Your task to perform on an android device: create a new album in the google photos Image 0: 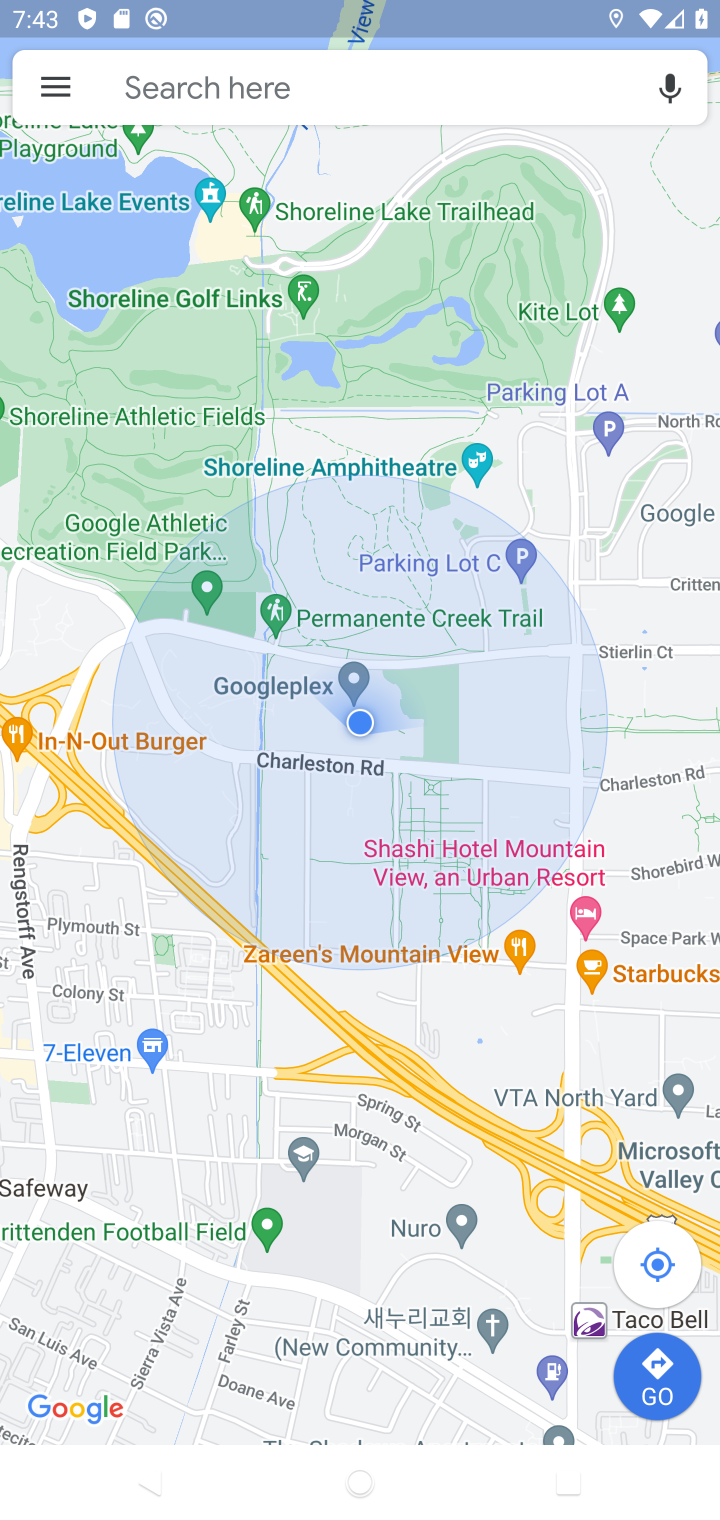
Step 0: press home button
Your task to perform on an android device: create a new album in the google photos Image 1: 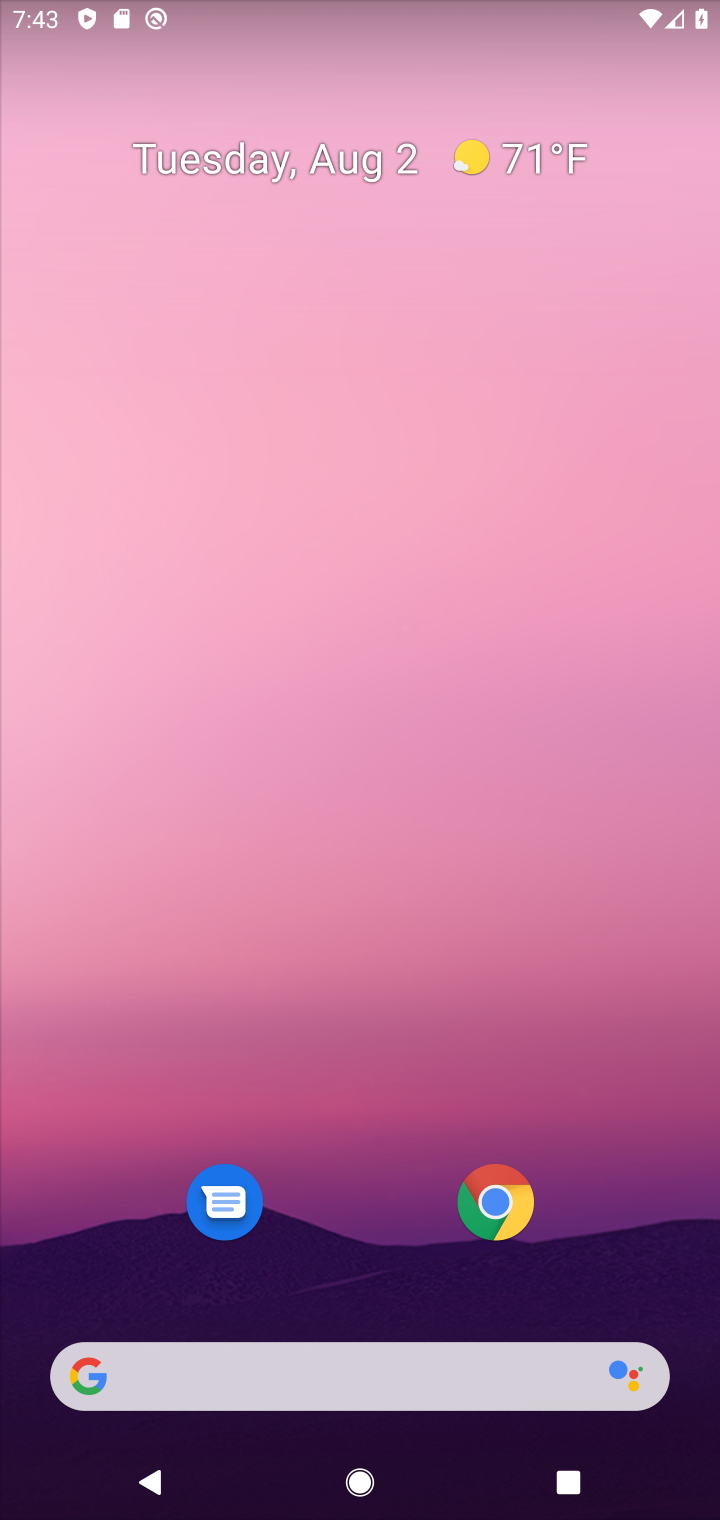
Step 1: drag from (326, 1130) to (283, 6)
Your task to perform on an android device: create a new album in the google photos Image 2: 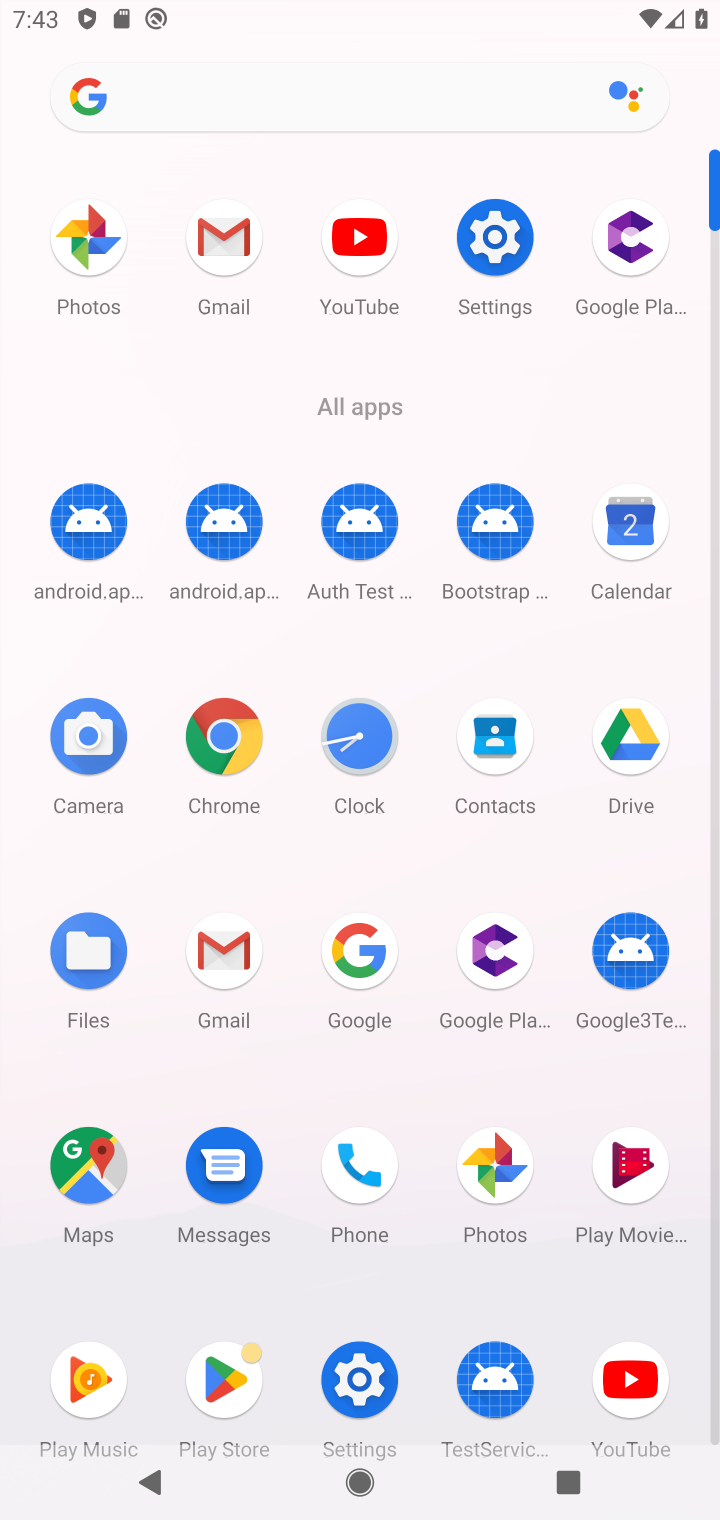
Step 2: click (90, 257)
Your task to perform on an android device: create a new album in the google photos Image 3: 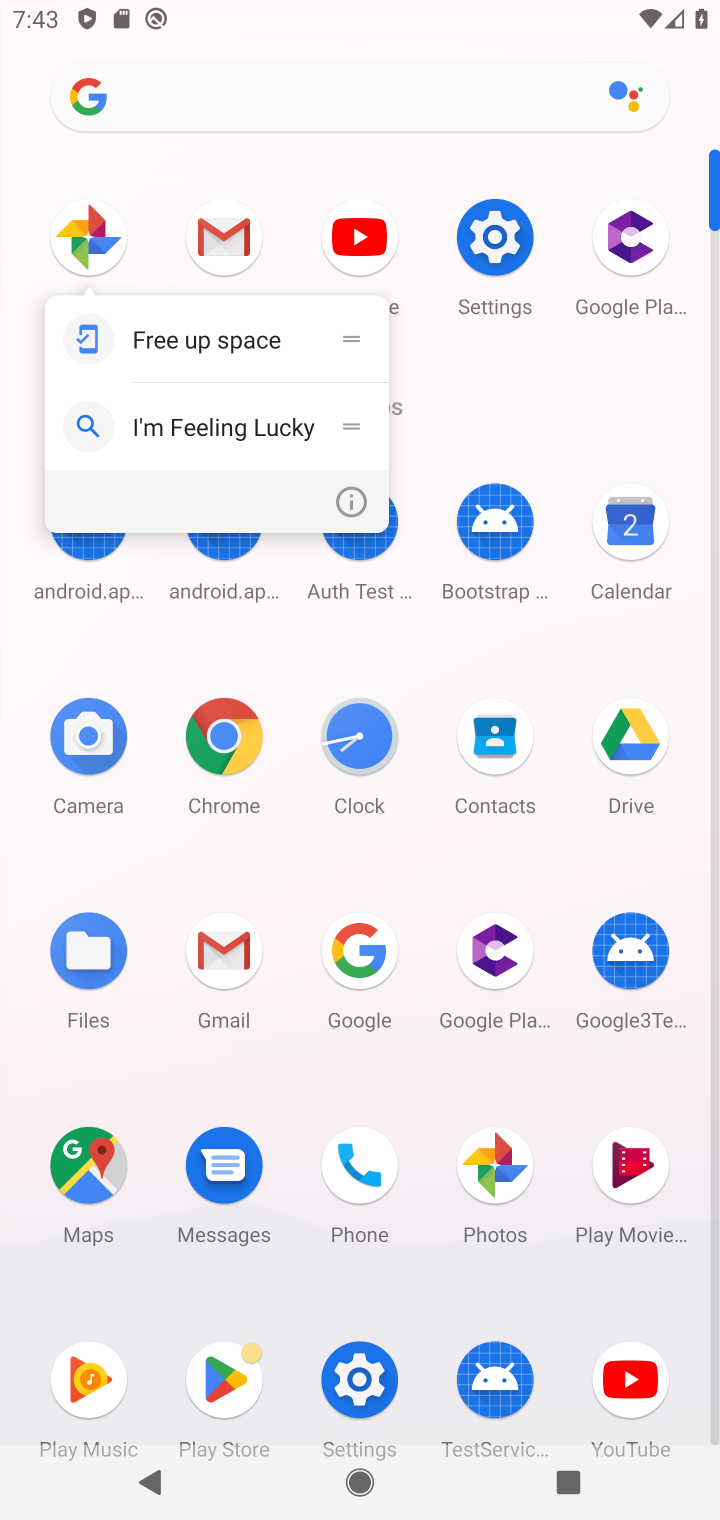
Step 3: click (88, 244)
Your task to perform on an android device: create a new album in the google photos Image 4: 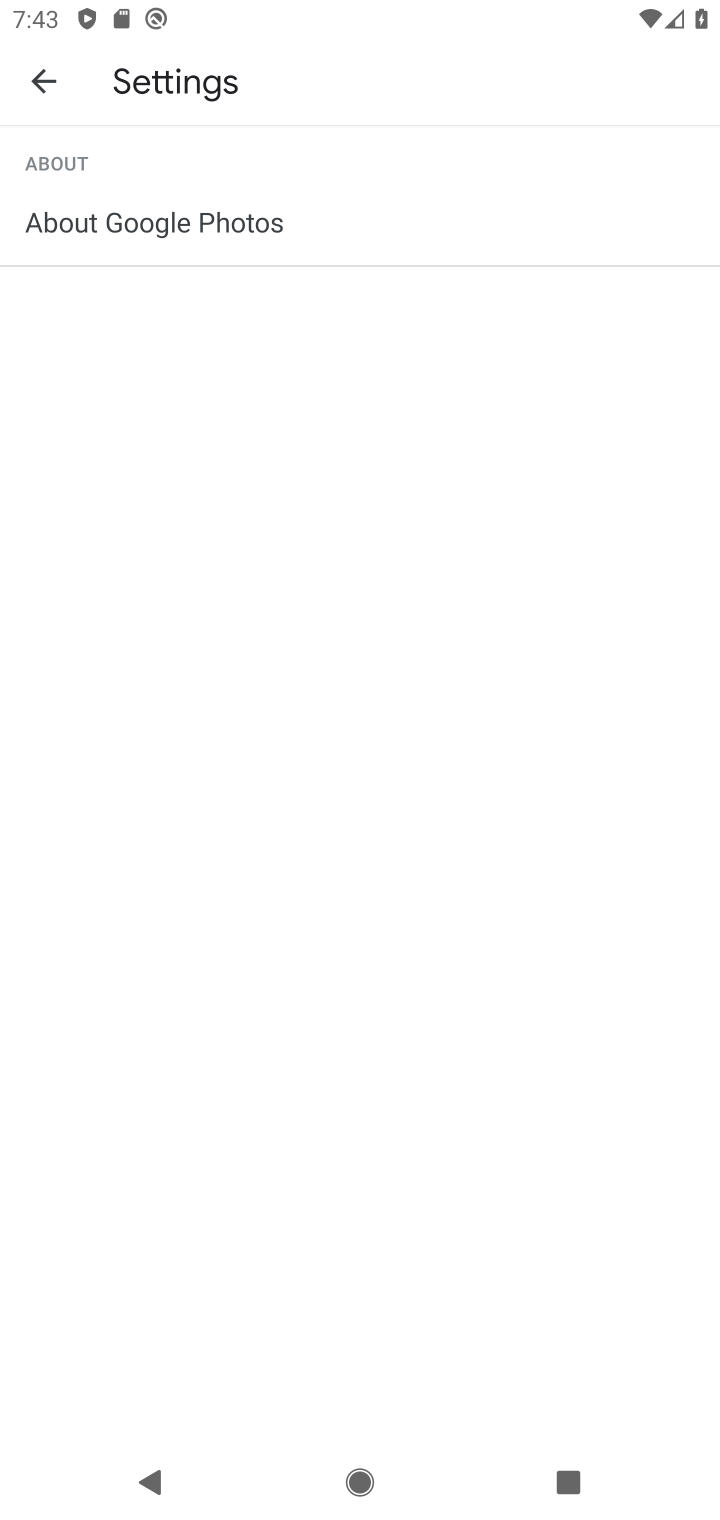
Step 4: click (40, 69)
Your task to perform on an android device: create a new album in the google photos Image 5: 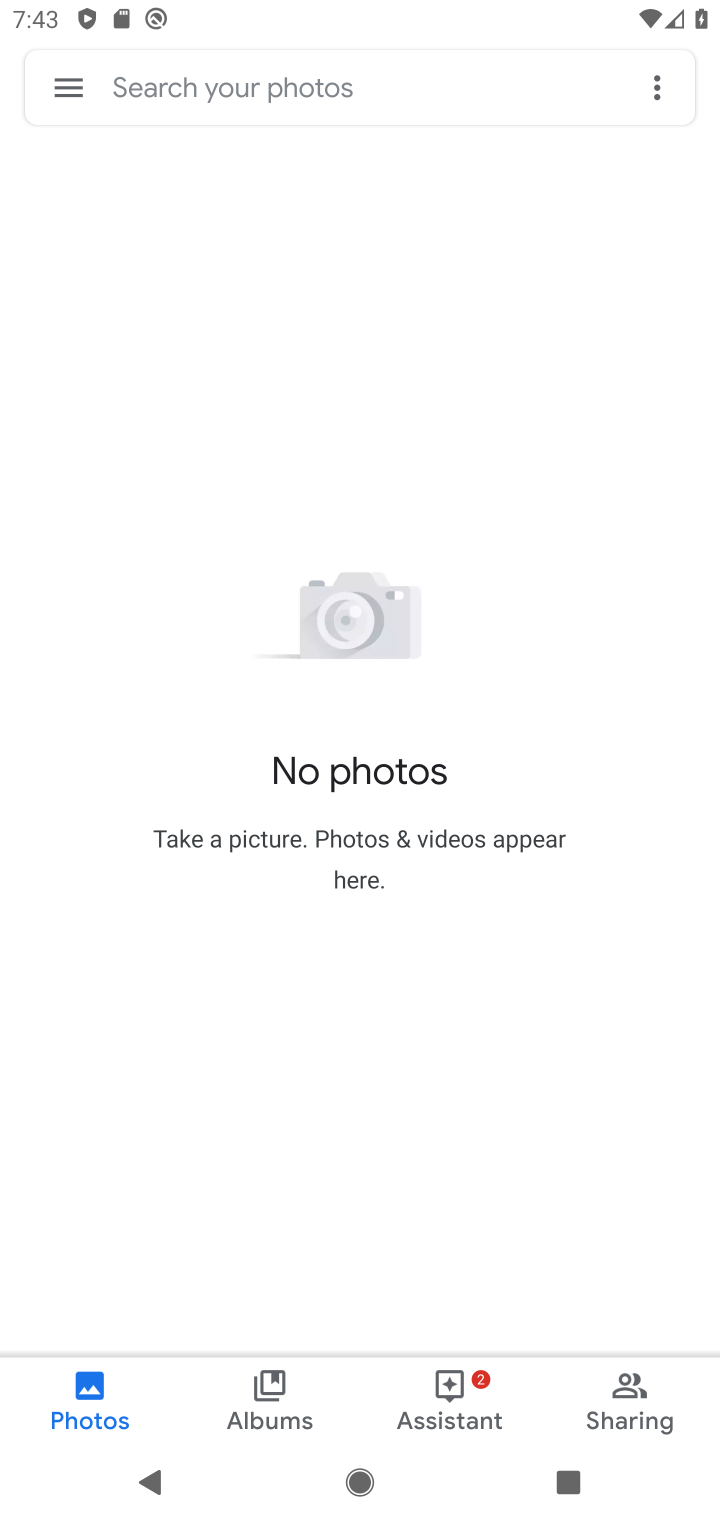
Step 5: task complete